Your task to perform on an android device: turn notification dots on Image 0: 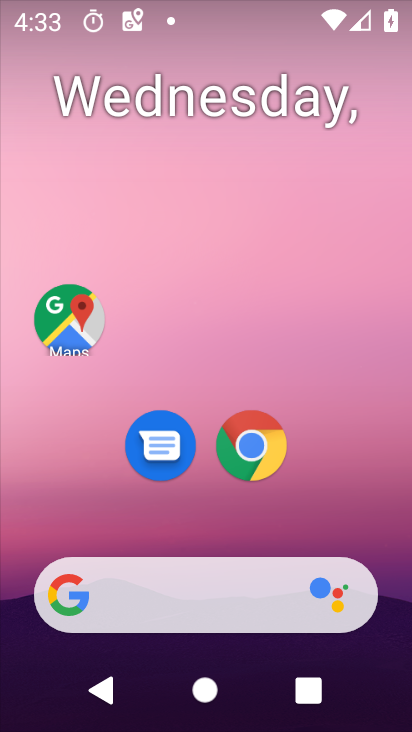
Step 0: drag from (227, 520) to (266, 7)
Your task to perform on an android device: turn notification dots on Image 1: 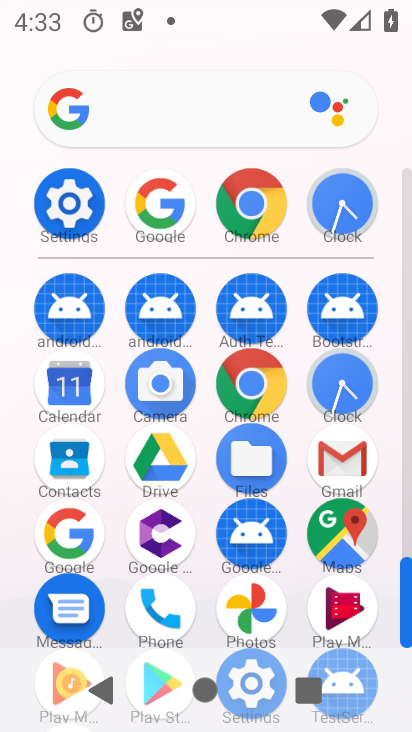
Step 1: click (66, 197)
Your task to perform on an android device: turn notification dots on Image 2: 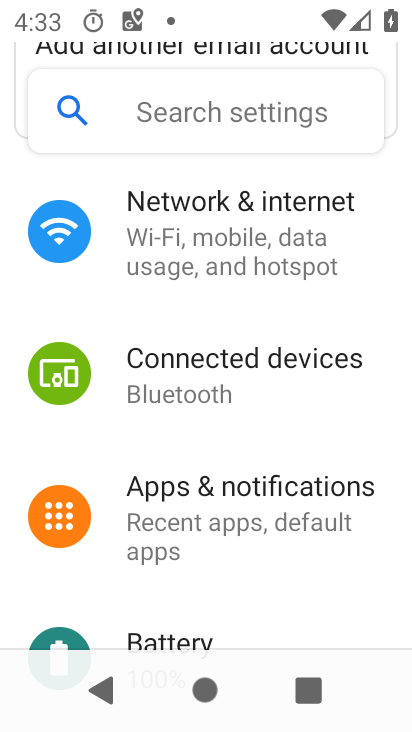
Step 2: drag from (213, 384) to (248, 162)
Your task to perform on an android device: turn notification dots on Image 3: 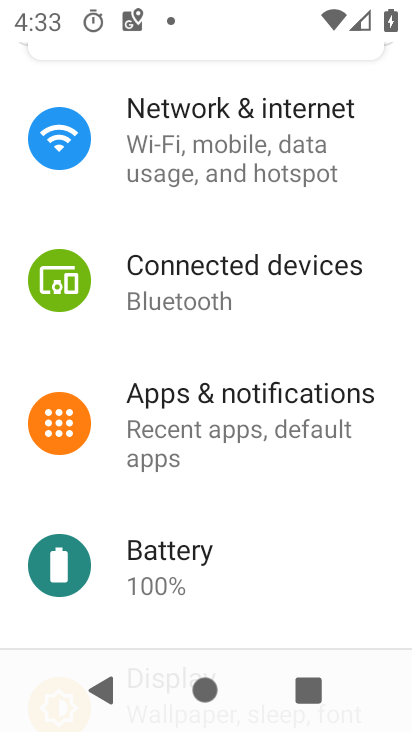
Step 3: click (247, 403)
Your task to perform on an android device: turn notification dots on Image 4: 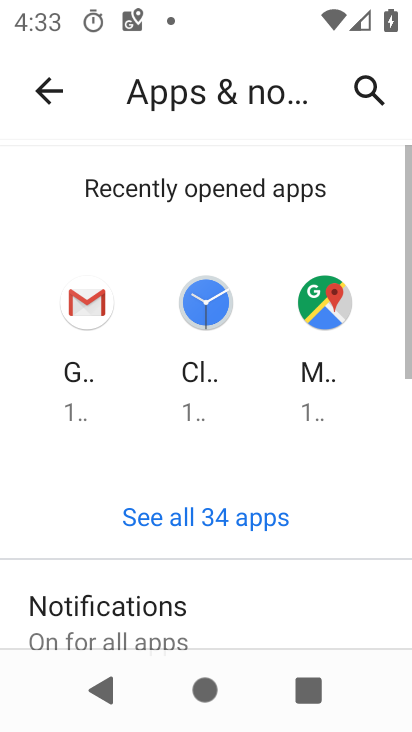
Step 4: drag from (281, 587) to (316, 136)
Your task to perform on an android device: turn notification dots on Image 5: 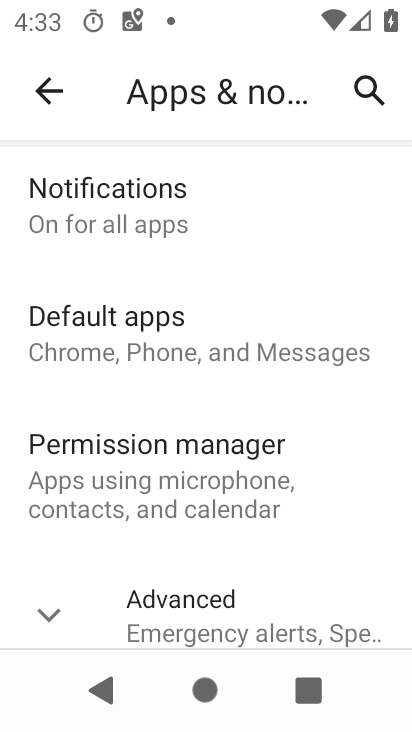
Step 5: click (192, 612)
Your task to perform on an android device: turn notification dots on Image 6: 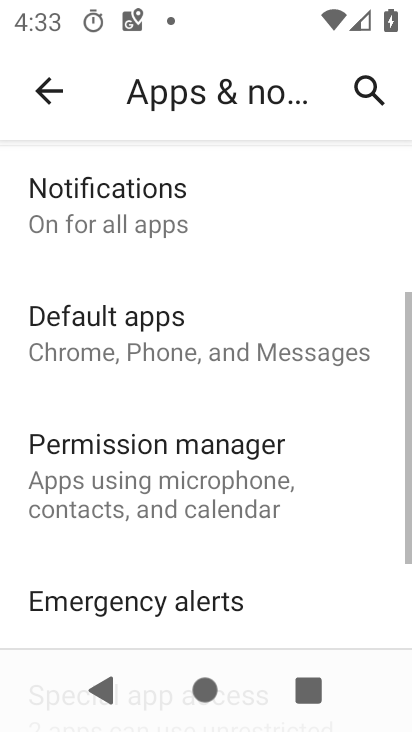
Step 6: click (90, 173)
Your task to perform on an android device: turn notification dots on Image 7: 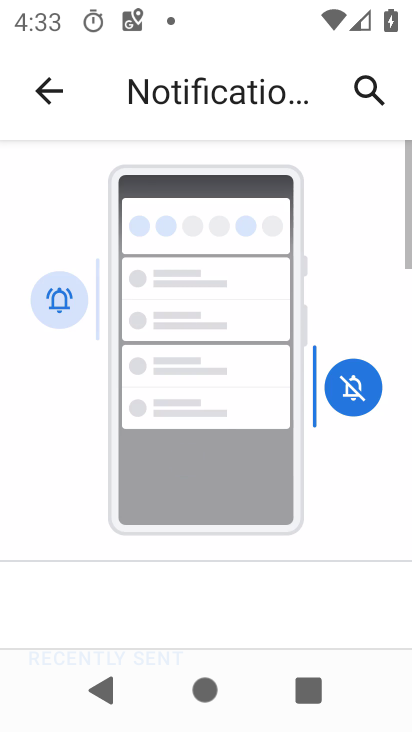
Step 7: drag from (262, 586) to (285, 18)
Your task to perform on an android device: turn notification dots on Image 8: 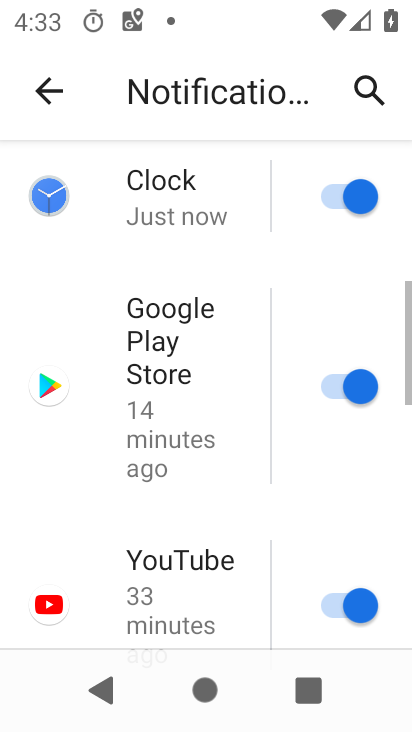
Step 8: drag from (276, 592) to (334, 17)
Your task to perform on an android device: turn notification dots on Image 9: 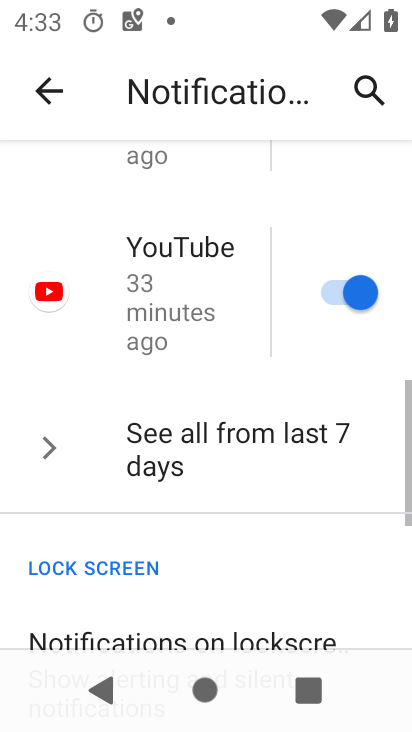
Step 9: drag from (230, 601) to (251, 132)
Your task to perform on an android device: turn notification dots on Image 10: 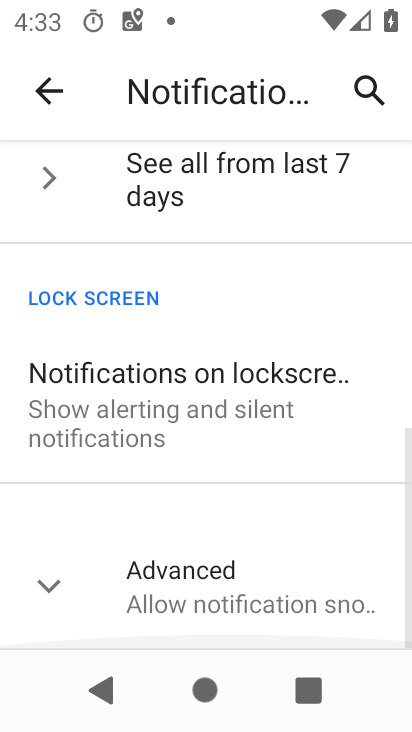
Step 10: click (191, 604)
Your task to perform on an android device: turn notification dots on Image 11: 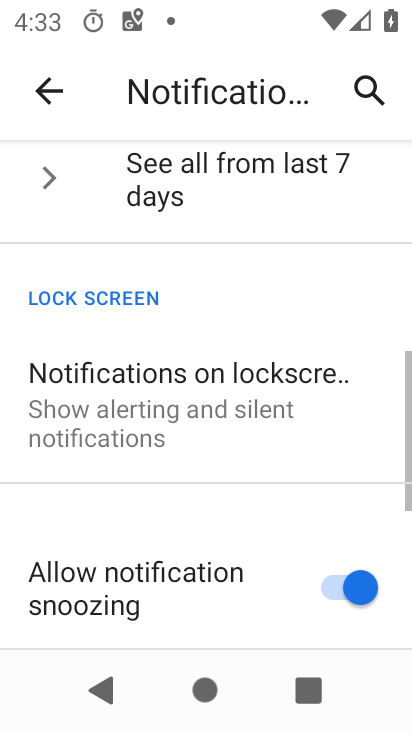
Step 11: drag from (279, 376) to (302, 121)
Your task to perform on an android device: turn notification dots on Image 12: 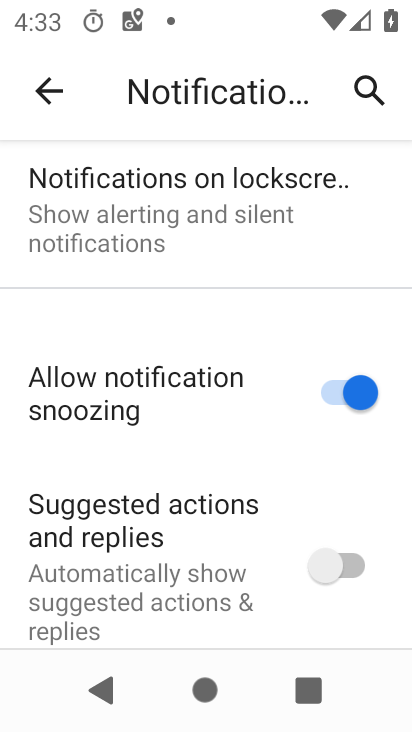
Step 12: drag from (219, 631) to (330, 146)
Your task to perform on an android device: turn notification dots on Image 13: 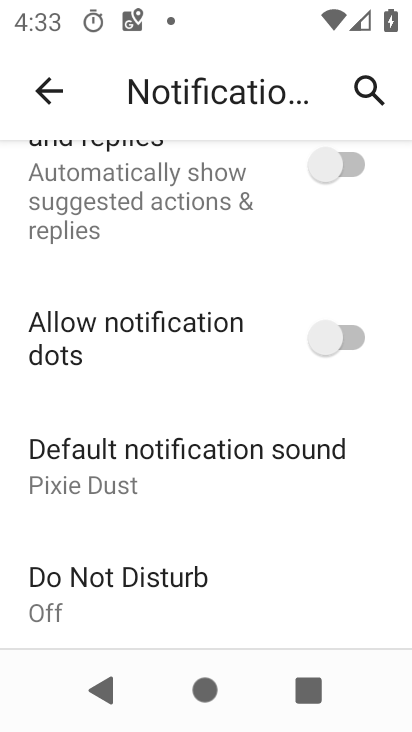
Step 13: click (326, 340)
Your task to perform on an android device: turn notification dots on Image 14: 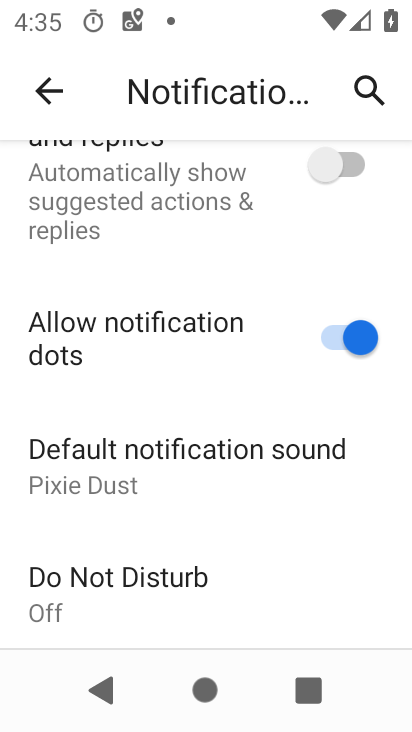
Step 14: task complete